Your task to perform on an android device: Show me recent news Image 0: 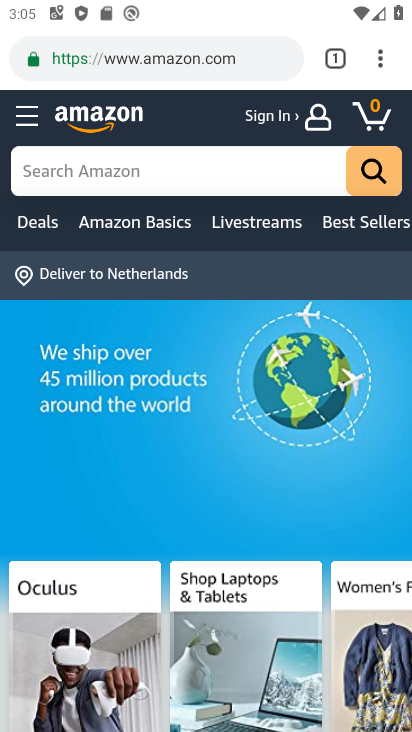
Step 0: press home button
Your task to perform on an android device: Show me recent news Image 1: 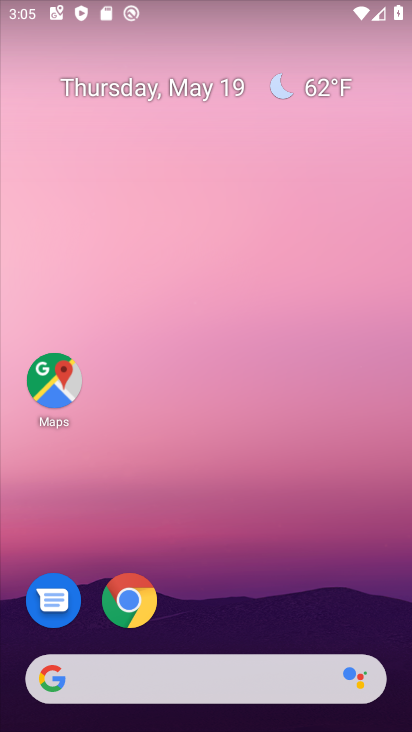
Step 1: click (121, 688)
Your task to perform on an android device: Show me recent news Image 2: 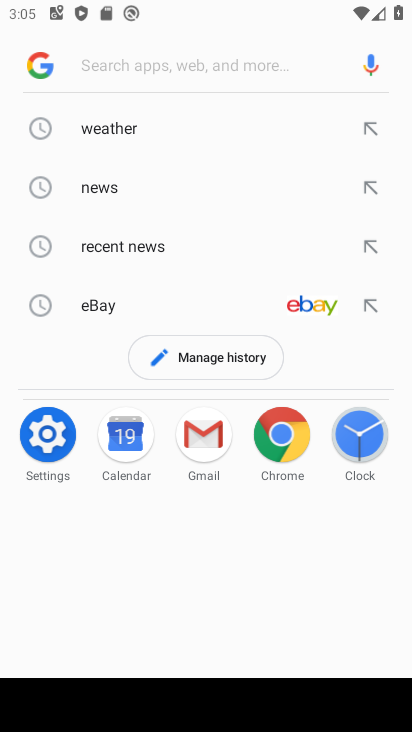
Step 2: click (102, 189)
Your task to perform on an android device: Show me recent news Image 3: 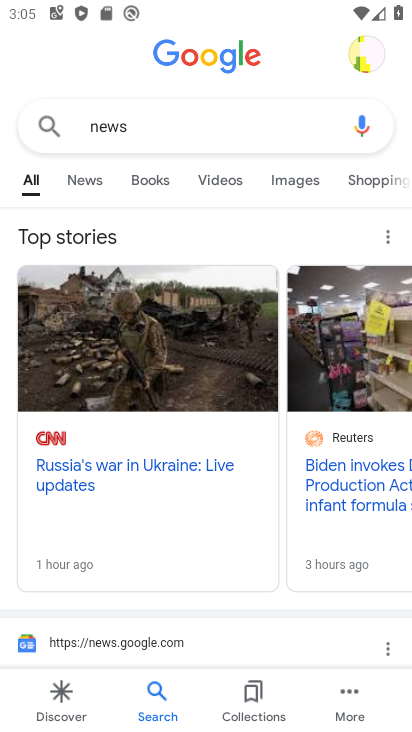
Step 3: task complete